Your task to perform on an android device: read, delete, or share a saved page in the chrome app Image 0: 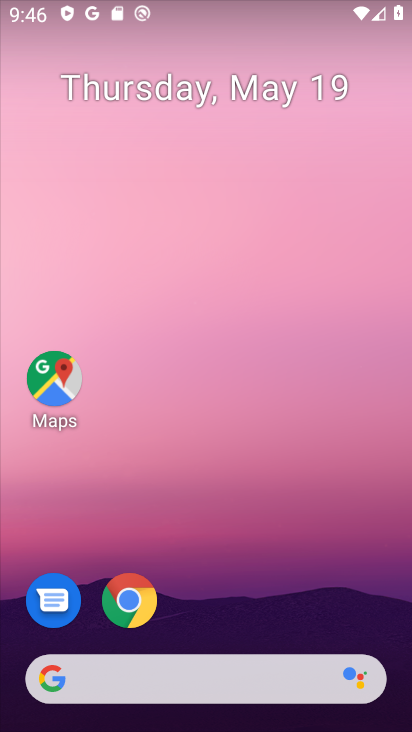
Step 0: drag from (236, 463) to (203, 21)
Your task to perform on an android device: read, delete, or share a saved page in the chrome app Image 1: 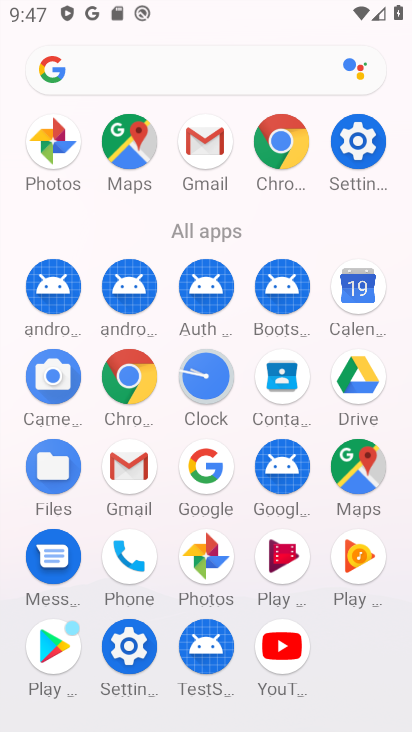
Step 1: click (121, 372)
Your task to perform on an android device: read, delete, or share a saved page in the chrome app Image 2: 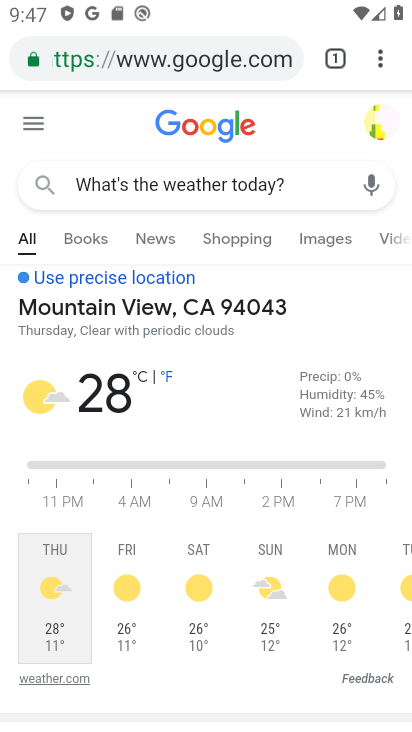
Step 2: task complete